Your task to perform on an android device: turn pop-ups off in chrome Image 0: 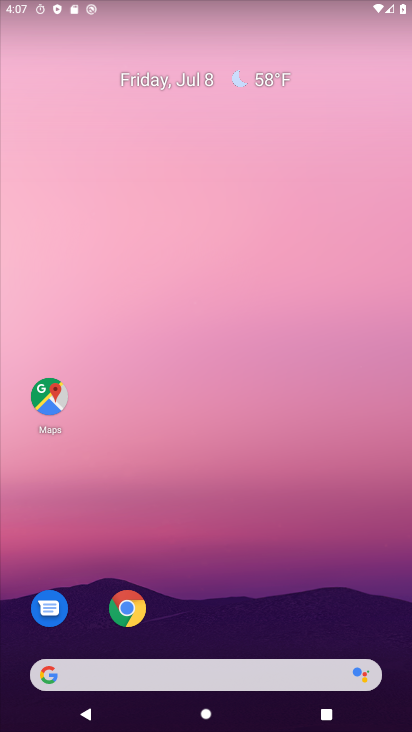
Step 0: click (129, 603)
Your task to perform on an android device: turn pop-ups off in chrome Image 1: 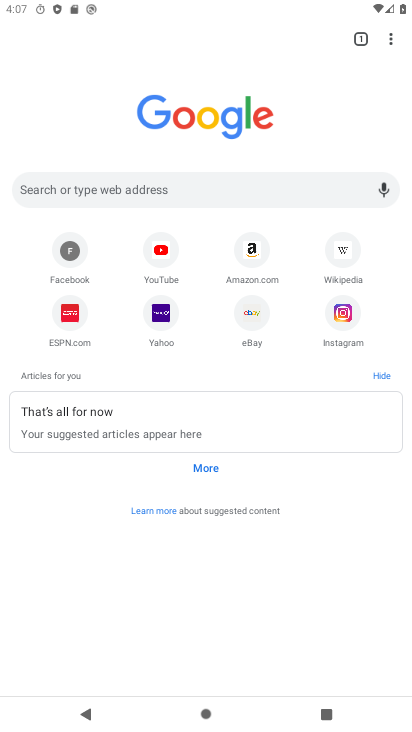
Step 1: click (387, 28)
Your task to perform on an android device: turn pop-ups off in chrome Image 2: 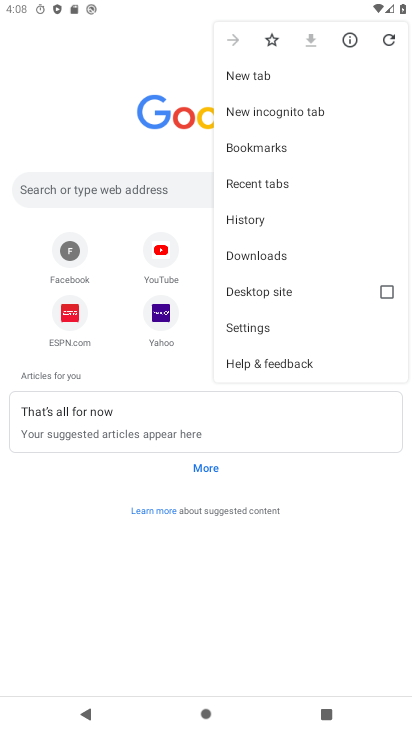
Step 2: click (251, 330)
Your task to perform on an android device: turn pop-ups off in chrome Image 3: 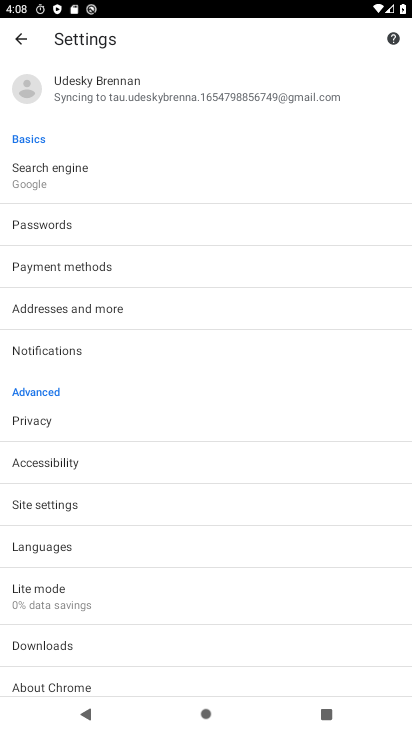
Step 3: click (88, 495)
Your task to perform on an android device: turn pop-ups off in chrome Image 4: 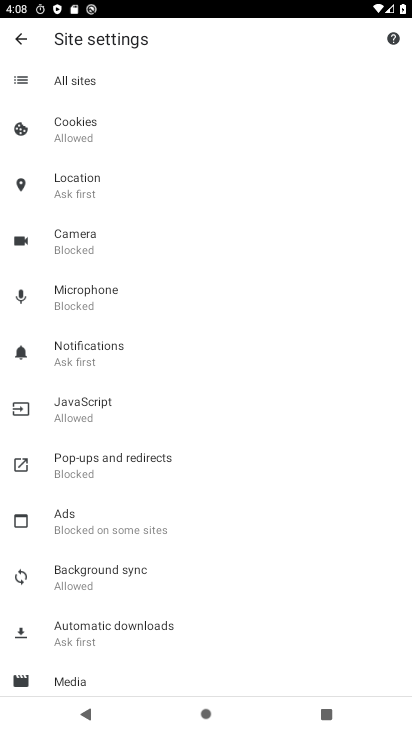
Step 4: click (145, 465)
Your task to perform on an android device: turn pop-ups off in chrome Image 5: 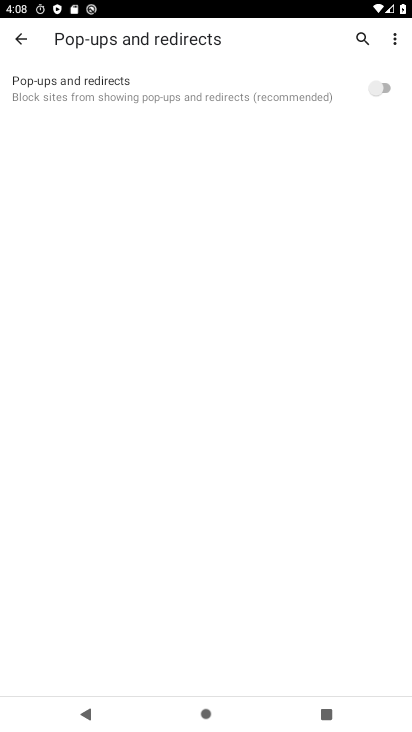
Step 5: task complete